Your task to perform on an android device: Open calendar and show me the first week of next month Image 0: 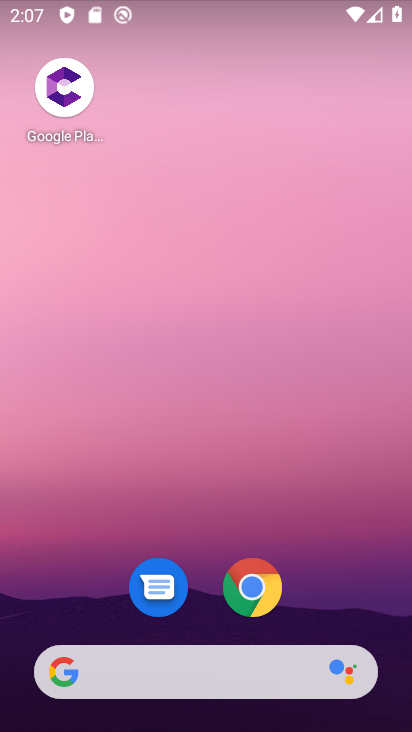
Step 0: drag from (190, 541) to (270, 8)
Your task to perform on an android device: Open calendar and show me the first week of next month Image 1: 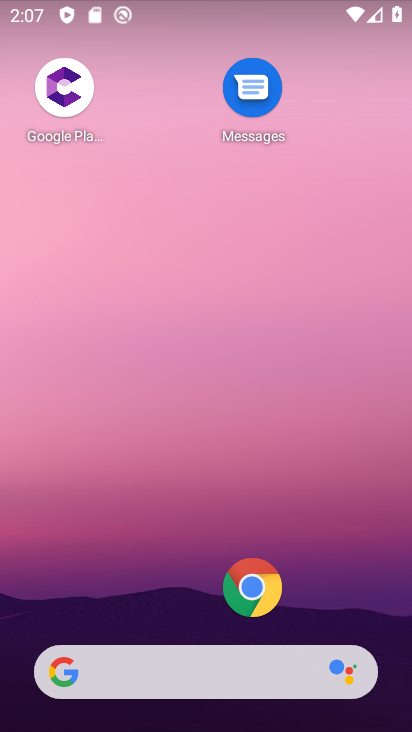
Step 1: drag from (163, 495) to (200, 79)
Your task to perform on an android device: Open calendar and show me the first week of next month Image 2: 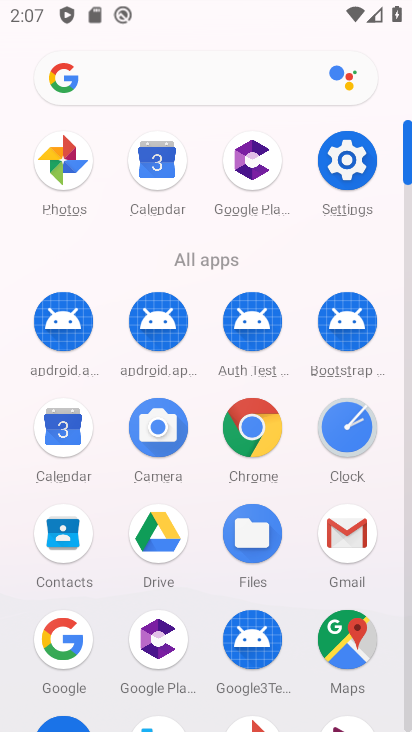
Step 2: click (150, 175)
Your task to perform on an android device: Open calendar and show me the first week of next month Image 3: 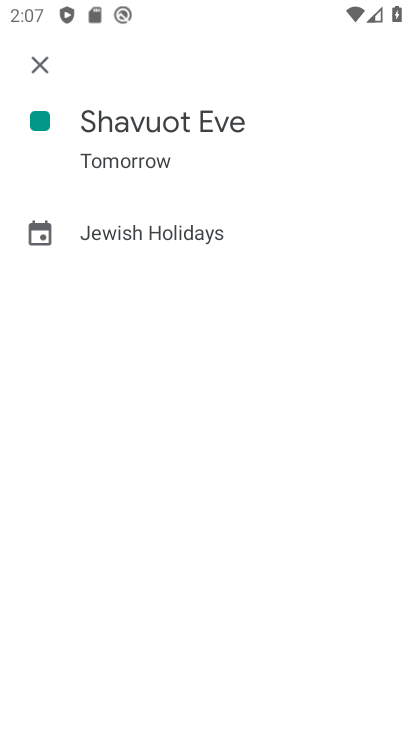
Step 3: click (32, 64)
Your task to perform on an android device: Open calendar and show me the first week of next month Image 4: 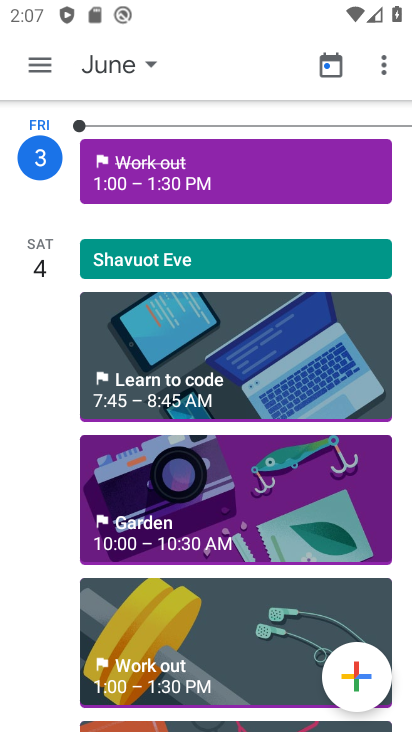
Step 4: click (120, 71)
Your task to perform on an android device: Open calendar and show me the first week of next month Image 5: 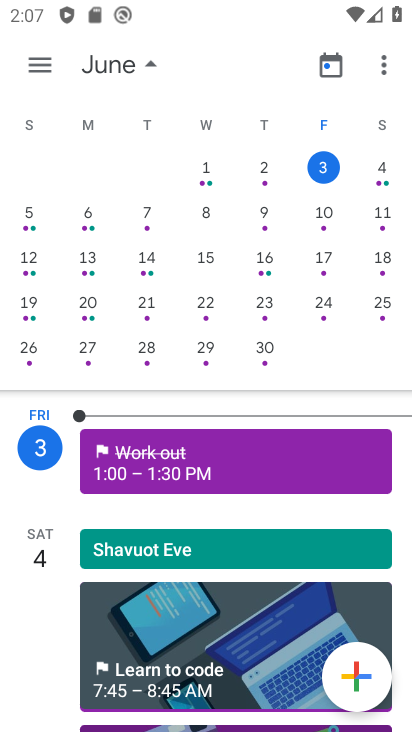
Step 5: drag from (362, 247) to (2, 240)
Your task to perform on an android device: Open calendar and show me the first week of next month Image 6: 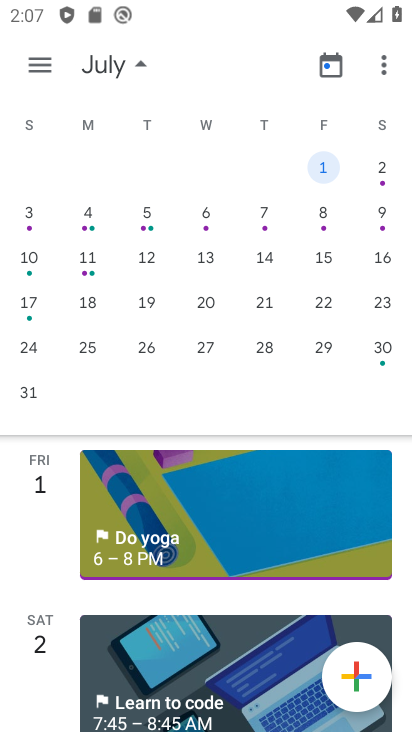
Step 6: click (74, 209)
Your task to perform on an android device: Open calendar and show me the first week of next month Image 7: 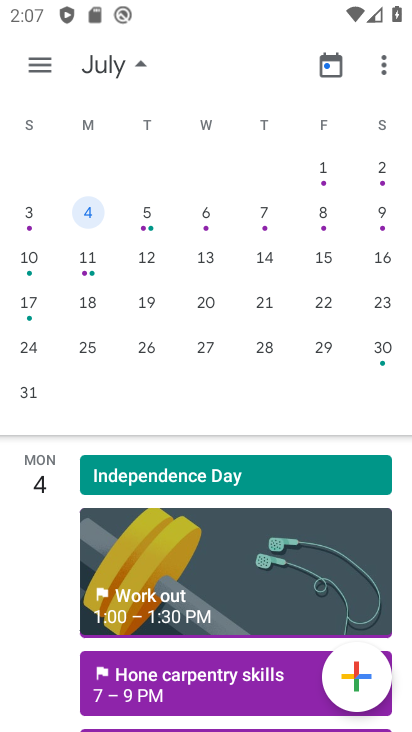
Step 7: task complete